Your task to perform on an android device: Check the news Image 0: 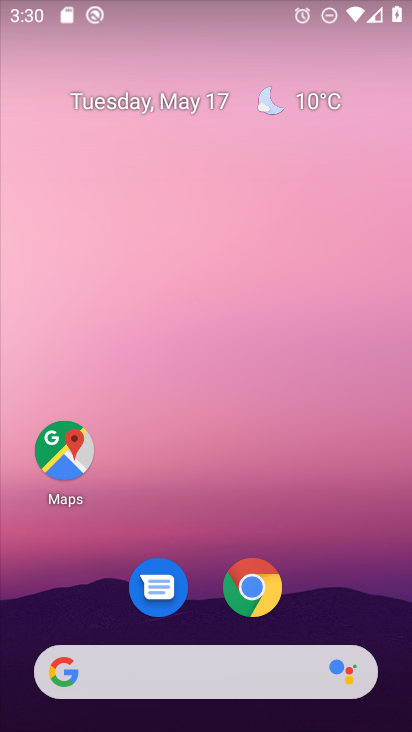
Step 0: drag from (314, 535) to (284, 13)
Your task to perform on an android device: Check the news Image 1: 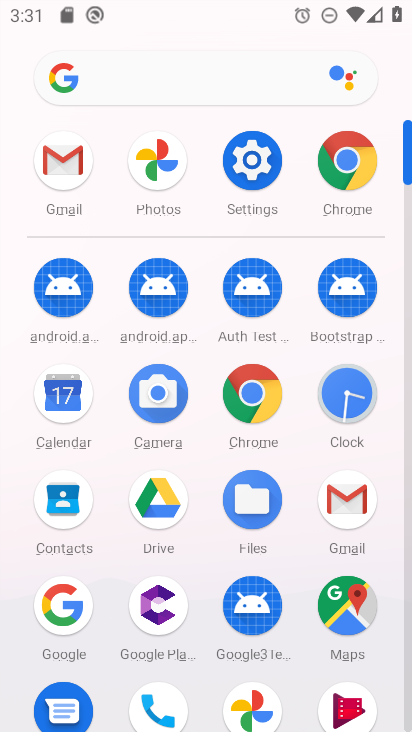
Step 1: click (246, 389)
Your task to perform on an android device: Check the news Image 2: 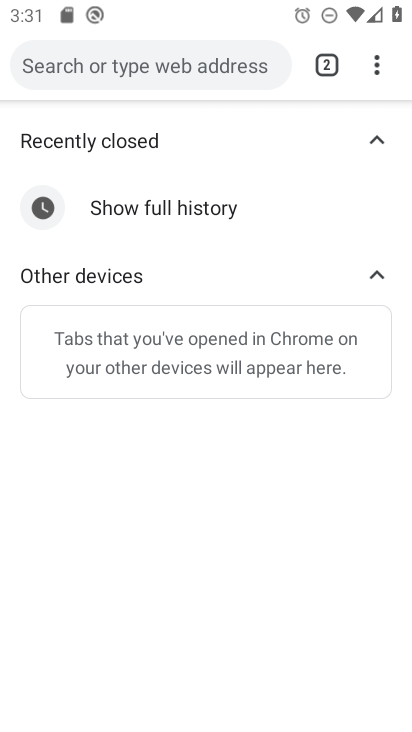
Step 2: click (174, 62)
Your task to perform on an android device: Check the news Image 3: 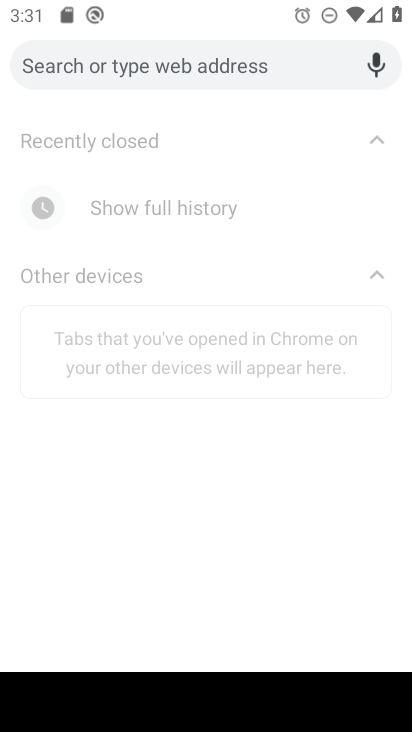
Step 3: type "Check the news"
Your task to perform on an android device: Check the news Image 4: 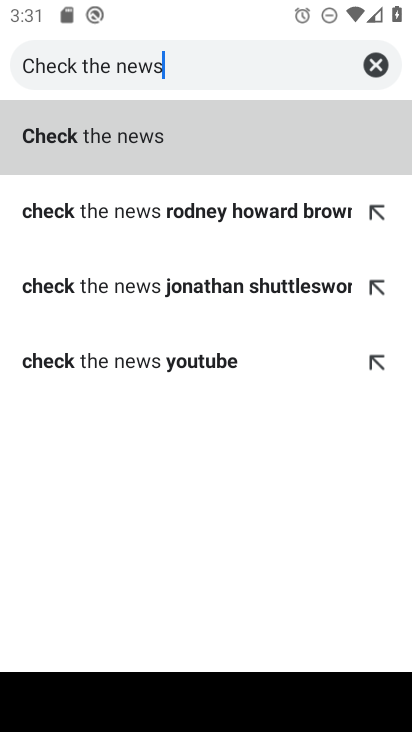
Step 4: type ""
Your task to perform on an android device: Check the news Image 5: 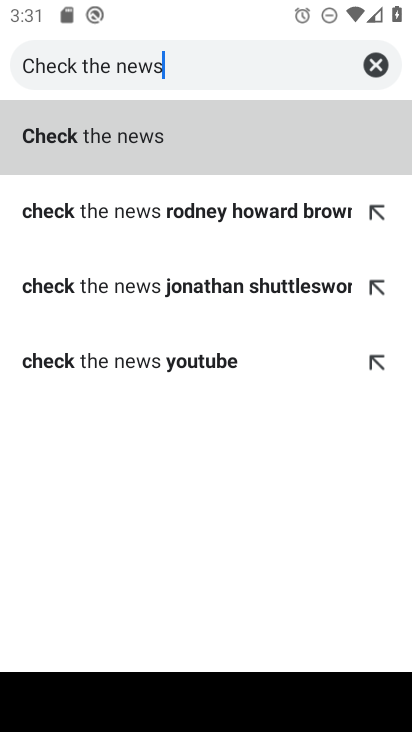
Step 5: click (129, 117)
Your task to perform on an android device: Check the news Image 6: 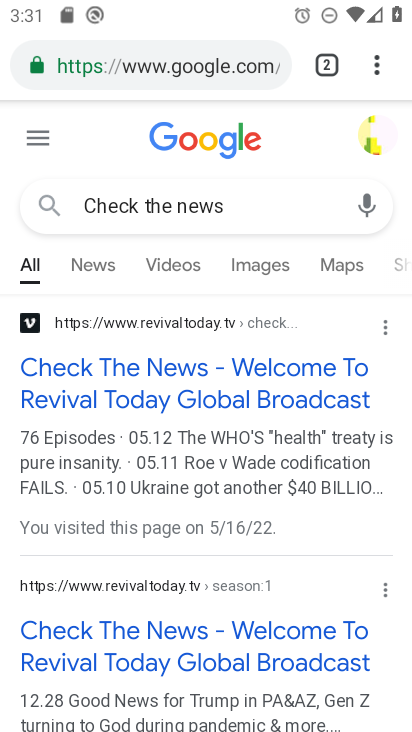
Step 6: click (87, 256)
Your task to perform on an android device: Check the news Image 7: 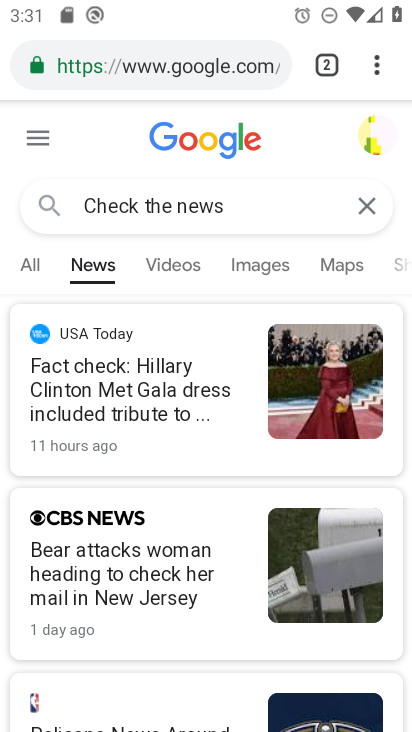
Step 7: task complete